Your task to perform on an android device: change timer sound Image 0: 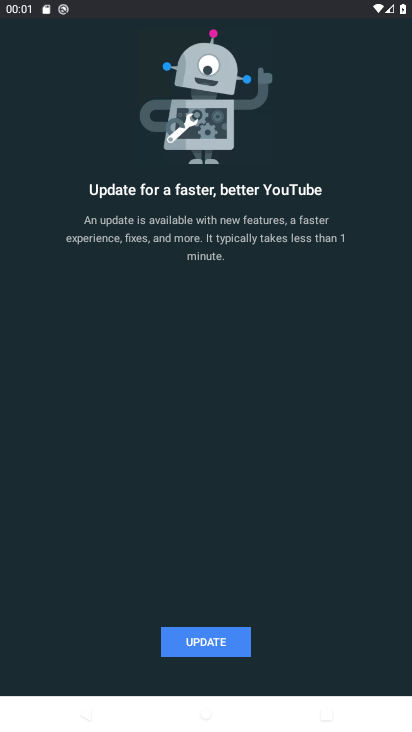
Step 0: press home button
Your task to perform on an android device: change timer sound Image 1: 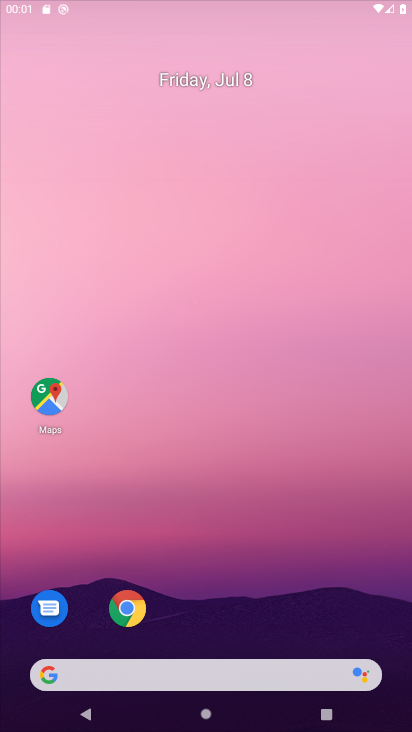
Step 1: drag from (173, 619) to (154, 76)
Your task to perform on an android device: change timer sound Image 2: 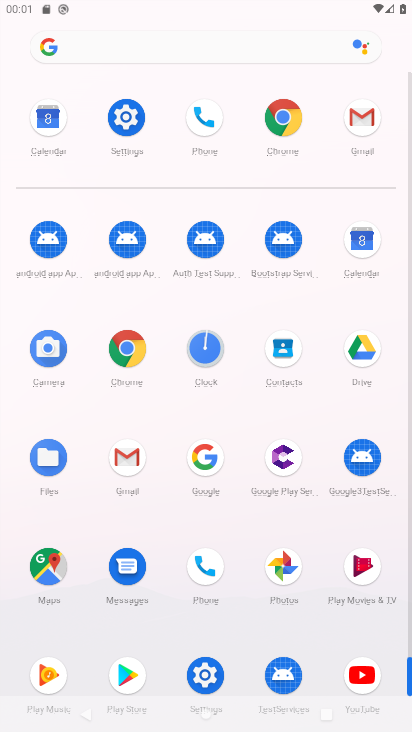
Step 2: click (198, 335)
Your task to perform on an android device: change timer sound Image 3: 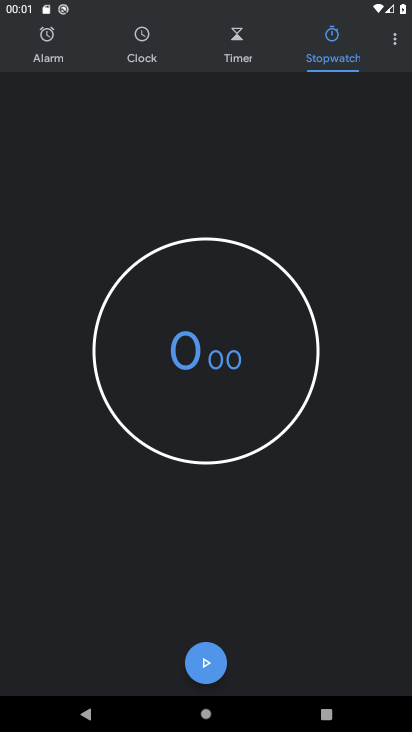
Step 3: click (400, 44)
Your task to perform on an android device: change timer sound Image 4: 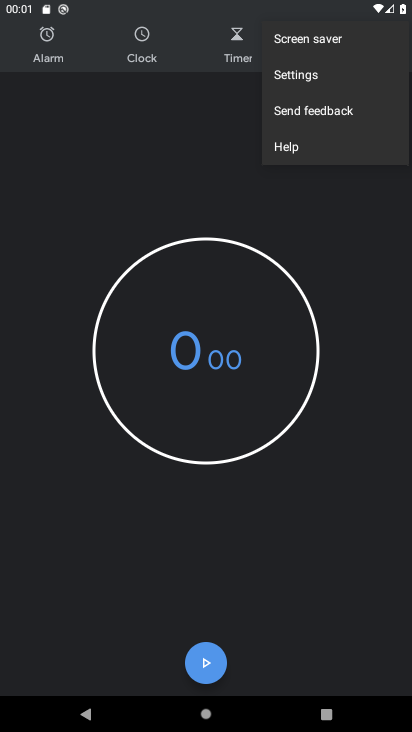
Step 4: click (312, 69)
Your task to perform on an android device: change timer sound Image 5: 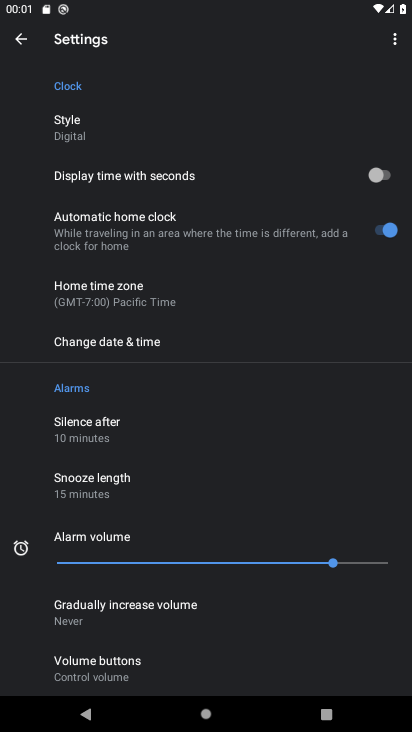
Step 5: drag from (177, 518) to (185, 299)
Your task to perform on an android device: change timer sound Image 6: 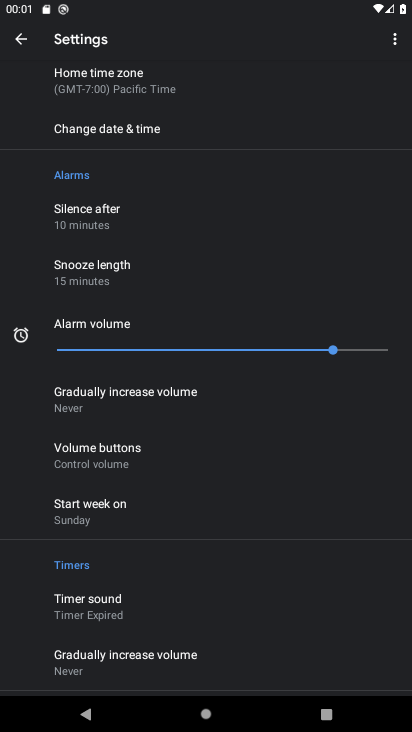
Step 6: drag from (197, 119) to (210, 565)
Your task to perform on an android device: change timer sound Image 7: 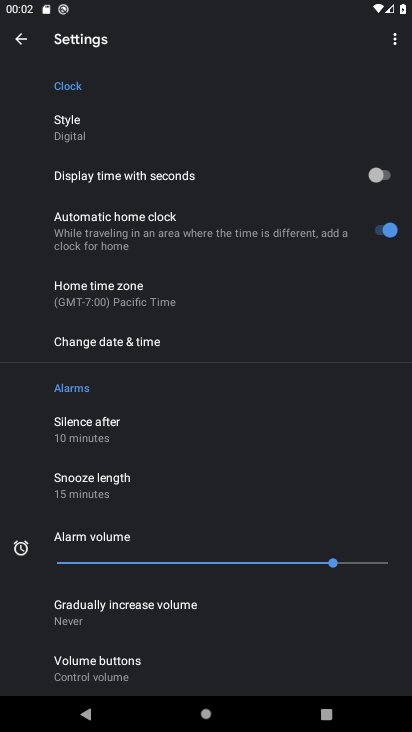
Step 7: drag from (155, 541) to (173, 316)
Your task to perform on an android device: change timer sound Image 8: 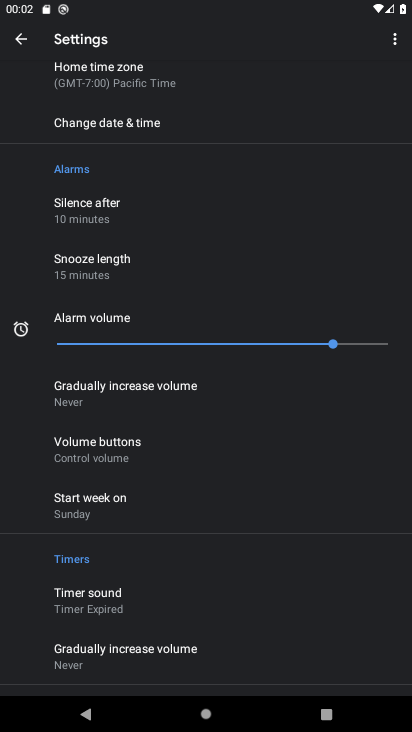
Step 8: click (78, 594)
Your task to perform on an android device: change timer sound Image 9: 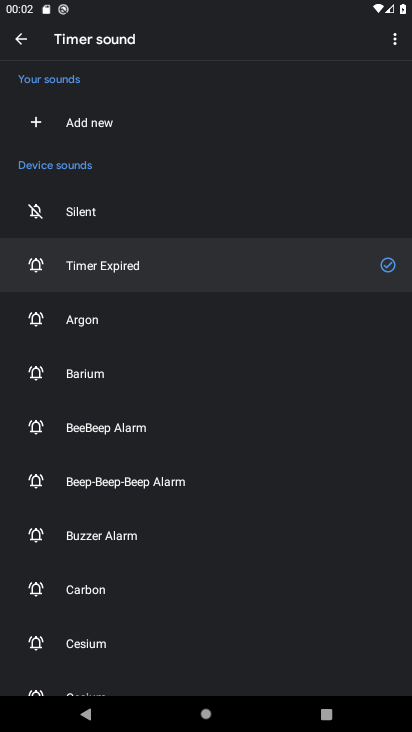
Step 9: click (70, 431)
Your task to perform on an android device: change timer sound Image 10: 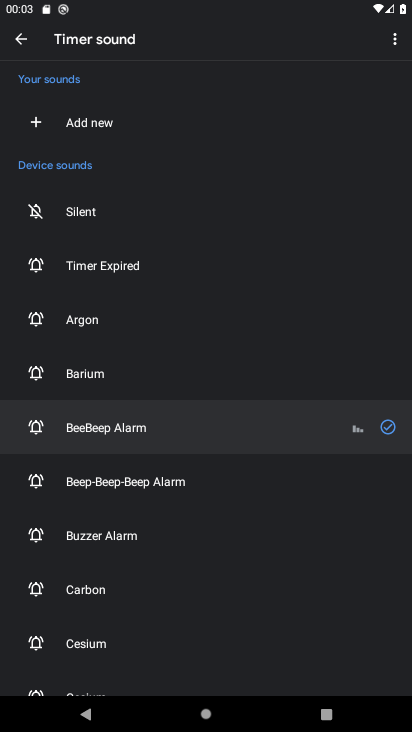
Step 10: task complete